Your task to perform on an android device: toggle location history Image 0: 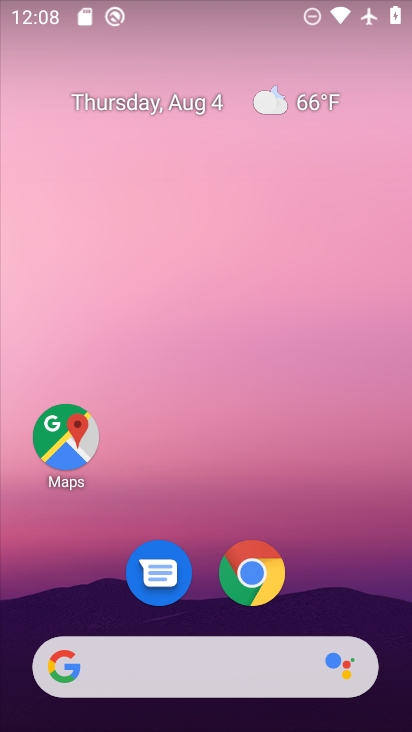
Step 0: drag from (342, 526) to (354, 182)
Your task to perform on an android device: toggle location history Image 1: 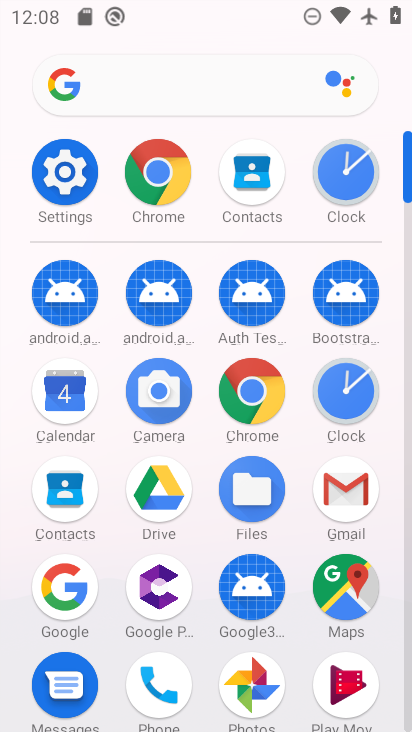
Step 1: click (88, 172)
Your task to perform on an android device: toggle location history Image 2: 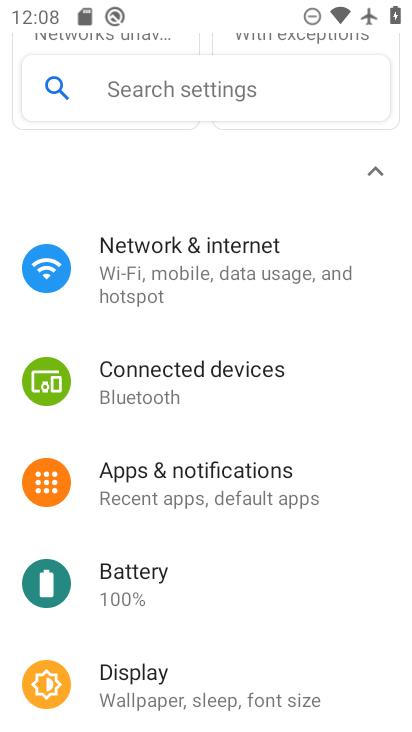
Step 2: drag from (349, 620) to (356, 303)
Your task to perform on an android device: toggle location history Image 3: 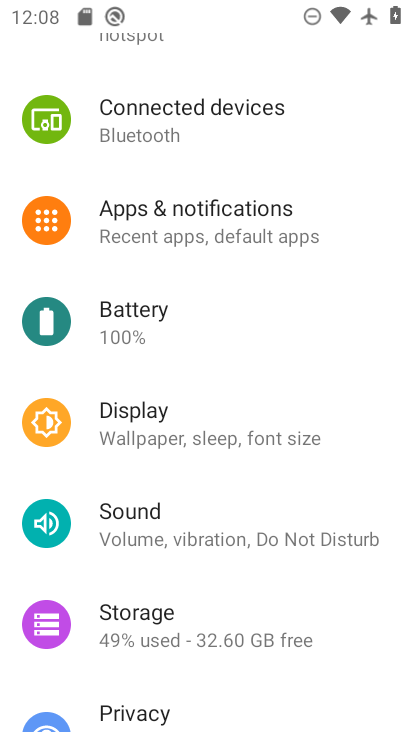
Step 3: drag from (341, 510) to (369, 307)
Your task to perform on an android device: toggle location history Image 4: 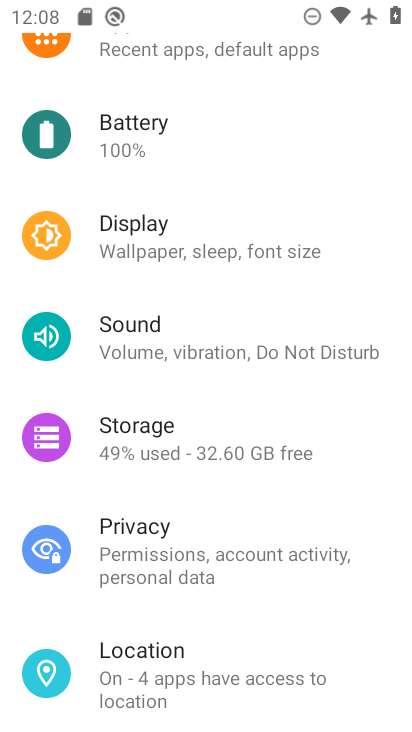
Step 4: click (133, 657)
Your task to perform on an android device: toggle location history Image 5: 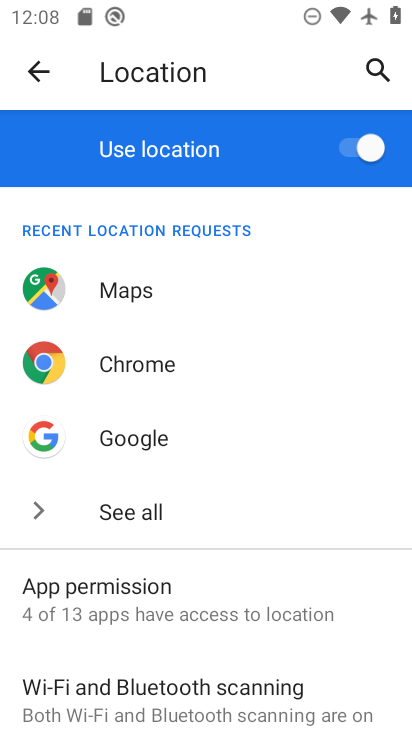
Step 5: drag from (292, 563) to (292, 325)
Your task to perform on an android device: toggle location history Image 6: 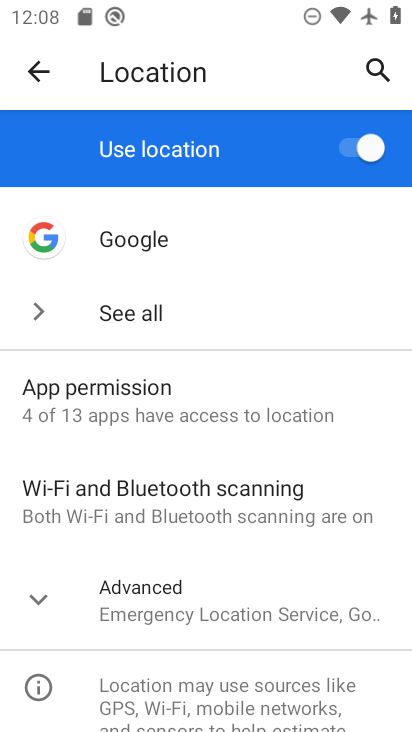
Step 6: click (161, 589)
Your task to perform on an android device: toggle location history Image 7: 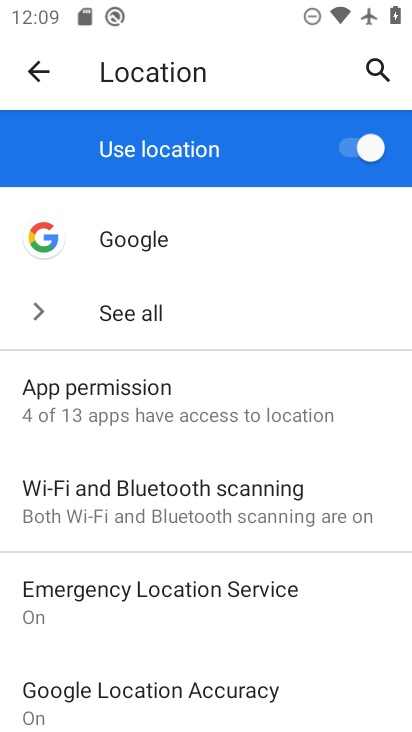
Step 7: drag from (239, 637) to (264, 259)
Your task to perform on an android device: toggle location history Image 8: 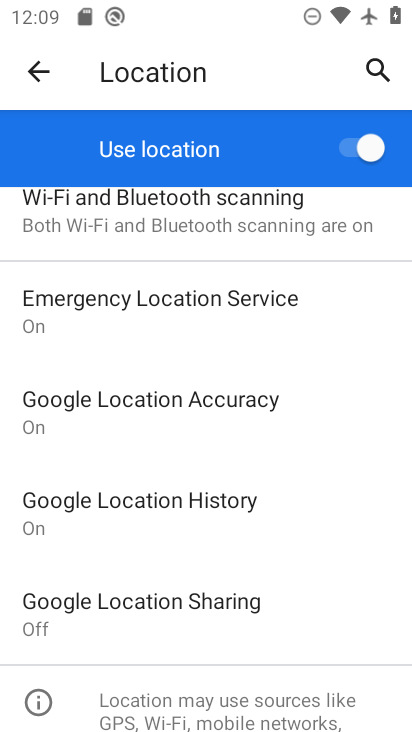
Step 8: click (191, 510)
Your task to perform on an android device: toggle location history Image 9: 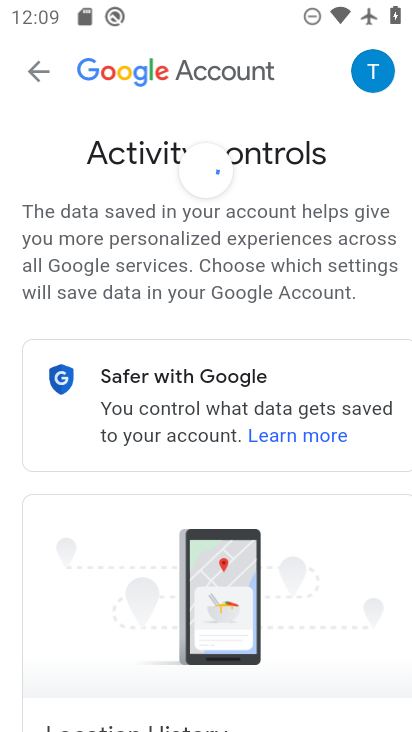
Step 9: click (288, 231)
Your task to perform on an android device: toggle location history Image 10: 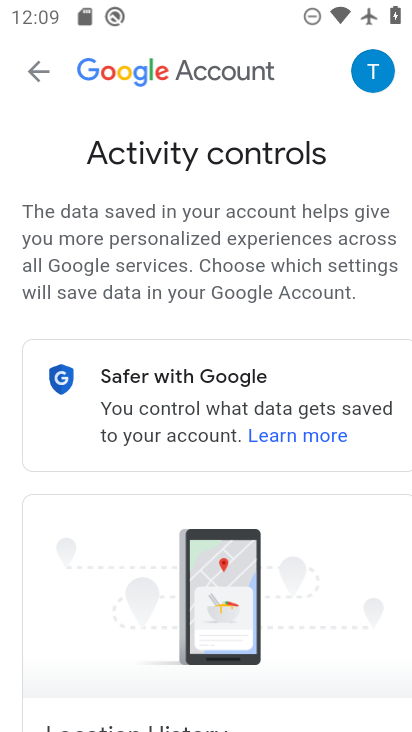
Step 10: drag from (344, 548) to (380, 259)
Your task to perform on an android device: toggle location history Image 11: 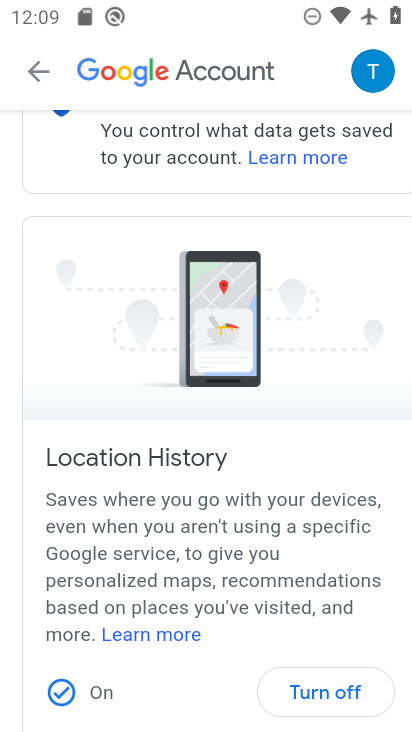
Step 11: click (334, 690)
Your task to perform on an android device: toggle location history Image 12: 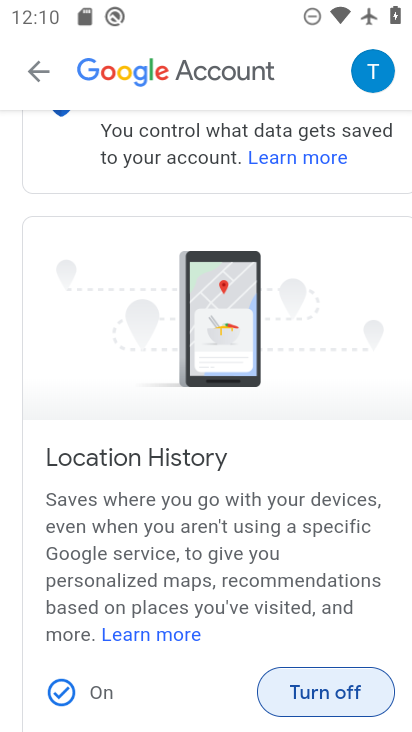
Step 12: click (332, 683)
Your task to perform on an android device: toggle location history Image 13: 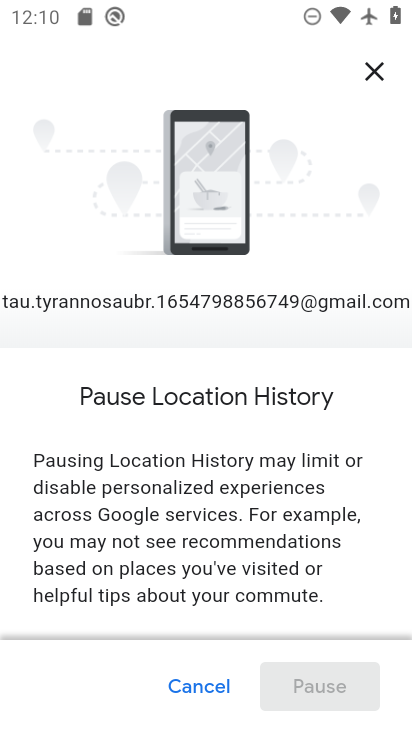
Step 13: click (271, 521)
Your task to perform on an android device: toggle location history Image 14: 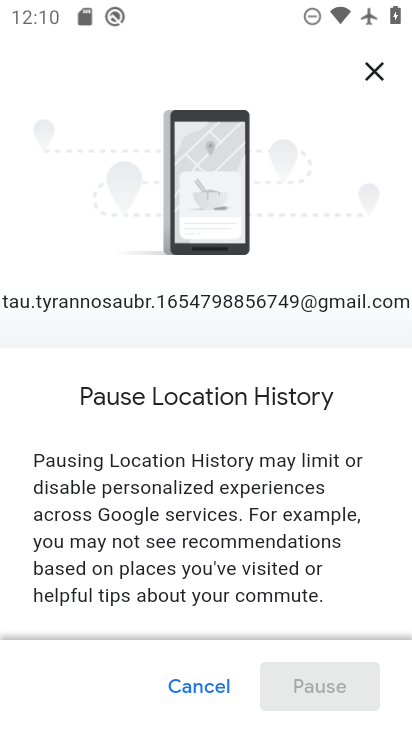
Step 14: drag from (324, 620) to (309, 223)
Your task to perform on an android device: toggle location history Image 15: 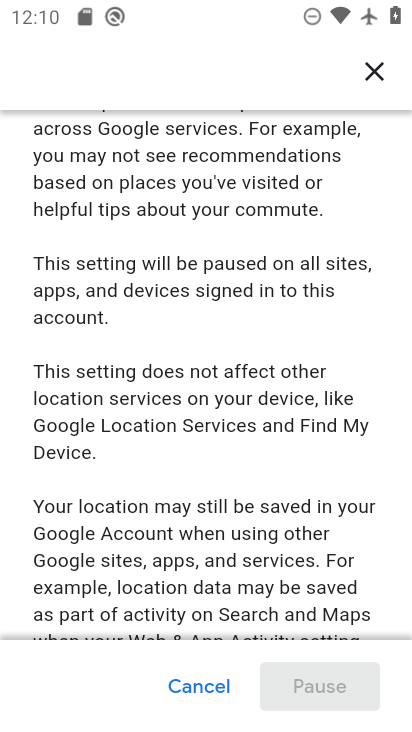
Step 15: drag from (282, 593) to (324, 183)
Your task to perform on an android device: toggle location history Image 16: 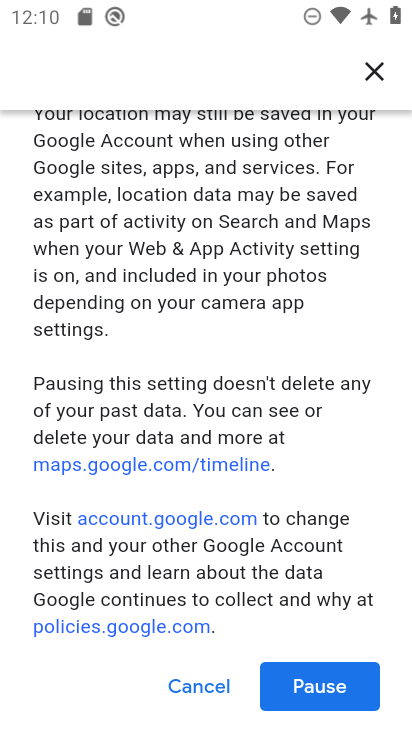
Step 16: click (337, 690)
Your task to perform on an android device: toggle location history Image 17: 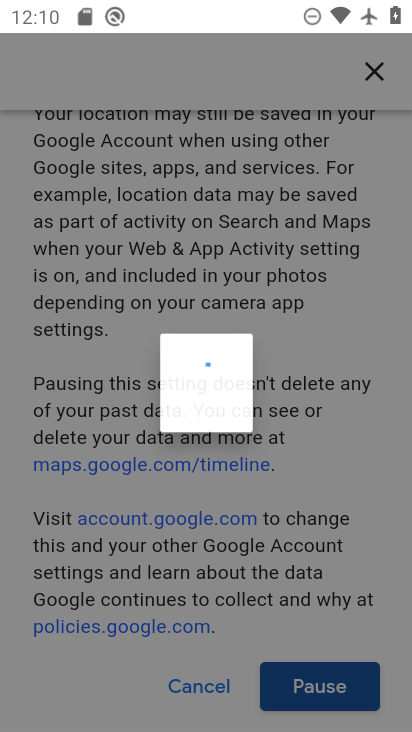
Step 17: click (339, 680)
Your task to perform on an android device: toggle location history Image 18: 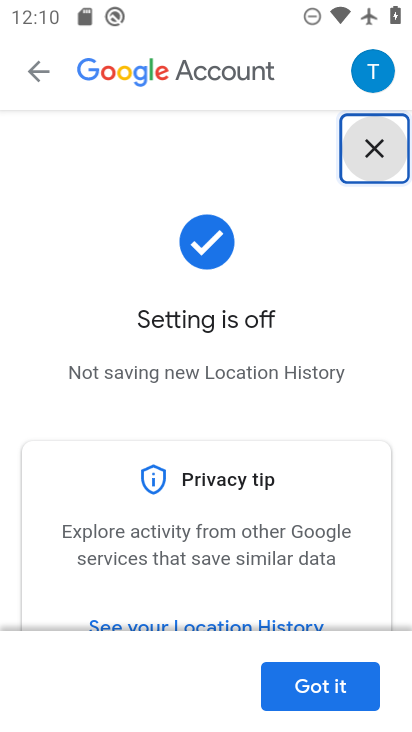
Step 18: task complete